Your task to perform on an android device: Open Reddit.com Image 0: 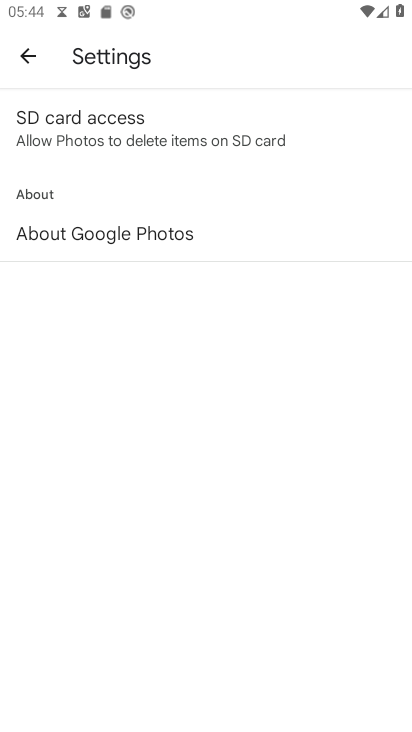
Step 0: press home button
Your task to perform on an android device: Open Reddit.com Image 1: 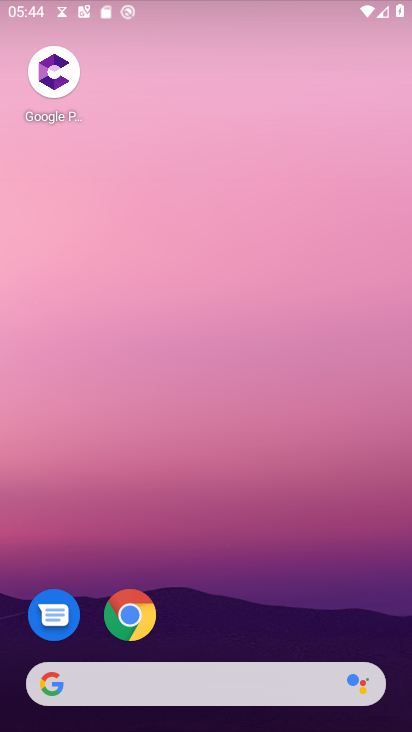
Step 1: drag from (232, 677) to (203, 58)
Your task to perform on an android device: Open Reddit.com Image 2: 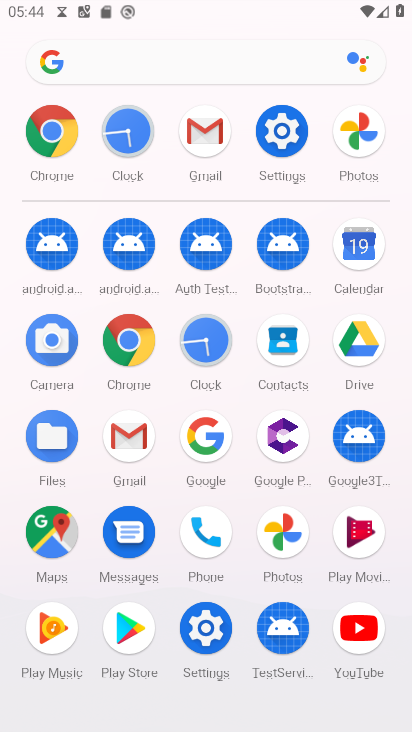
Step 2: click (126, 340)
Your task to perform on an android device: Open Reddit.com Image 3: 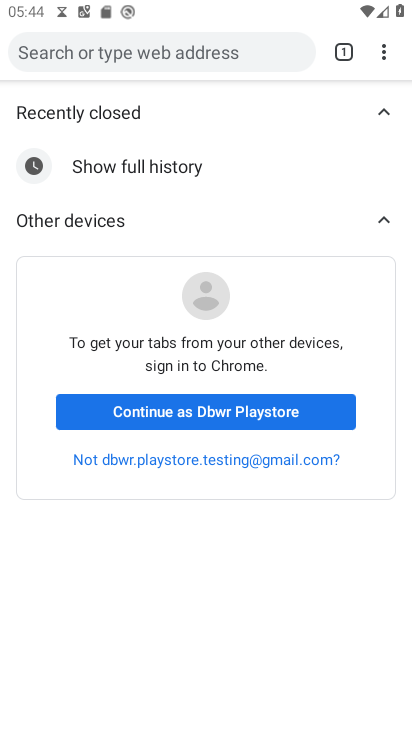
Step 3: click (223, 47)
Your task to perform on an android device: Open Reddit.com Image 4: 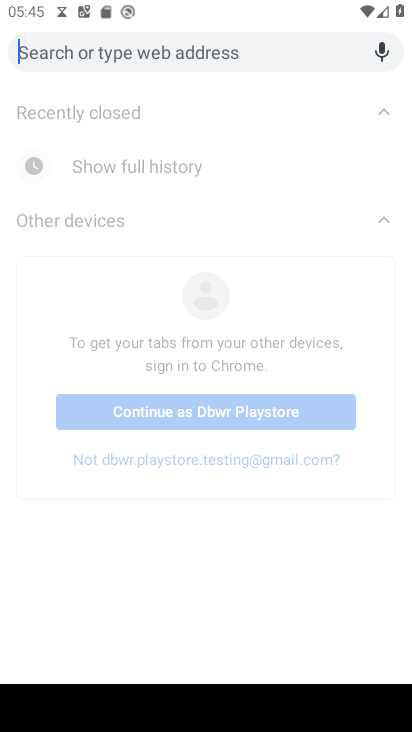
Step 4: type "reddit.com"
Your task to perform on an android device: Open Reddit.com Image 5: 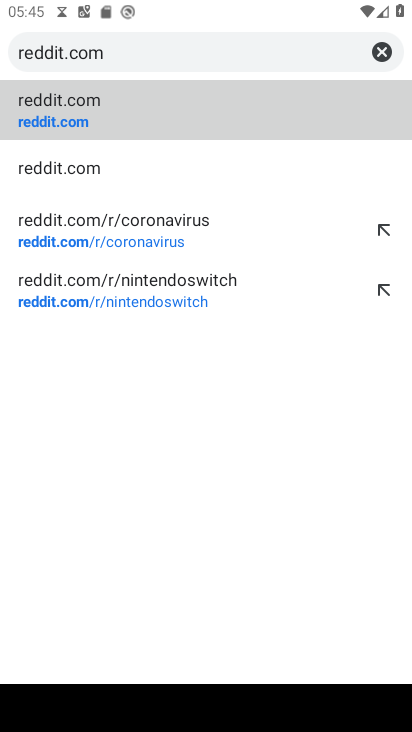
Step 5: click (70, 105)
Your task to perform on an android device: Open Reddit.com Image 6: 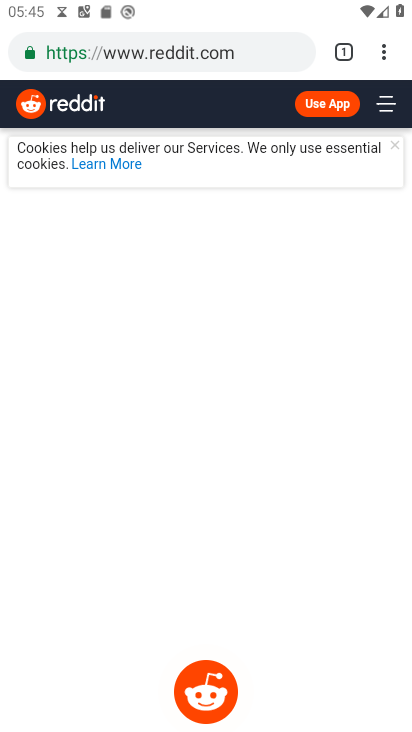
Step 6: task complete